Your task to perform on an android device: add a contact in the contacts app Image 0: 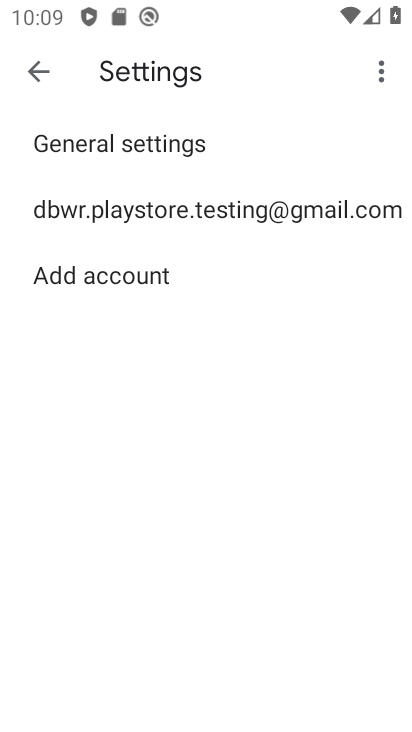
Step 0: press home button
Your task to perform on an android device: add a contact in the contacts app Image 1: 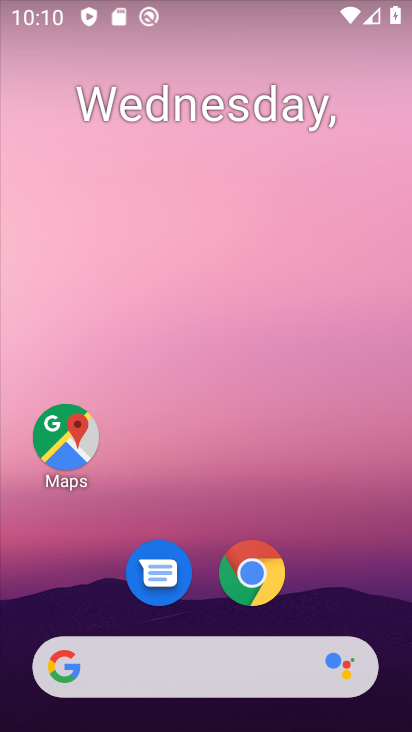
Step 1: drag from (313, 542) to (280, 178)
Your task to perform on an android device: add a contact in the contacts app Image 2: 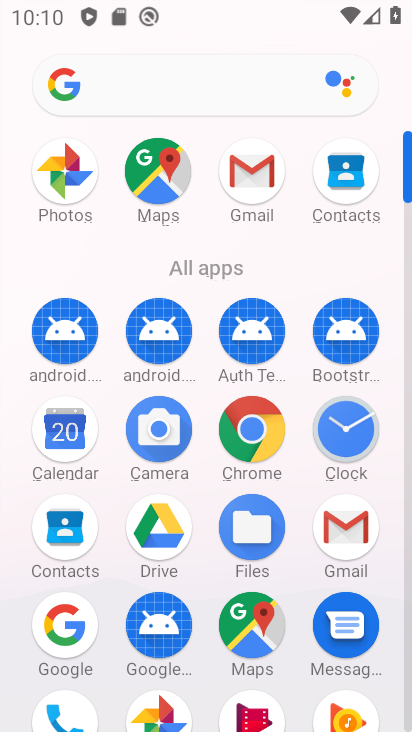
Step 2: click (85, 535)
Your task to perform on an android device: add a contact in the contacts app Image 3: 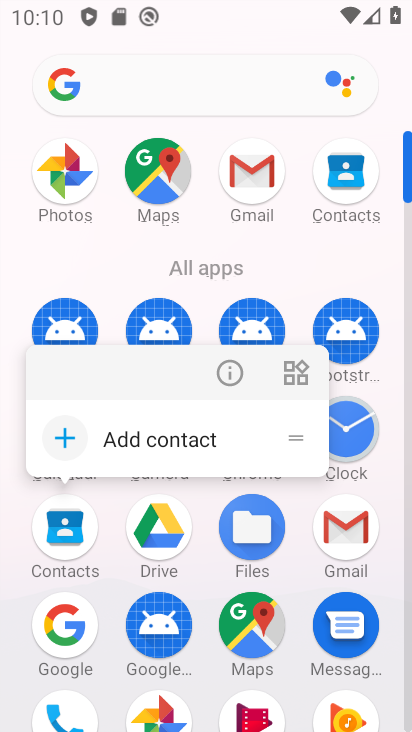
Step 3: click (68, 532)
Your task to perform on an android device: add a contact in the contacts app Image 4: 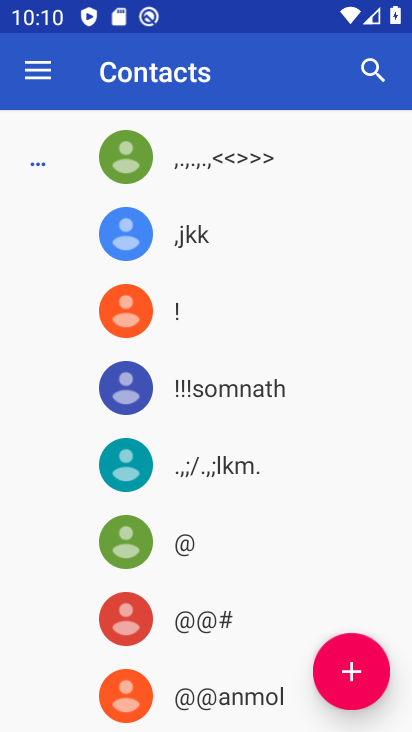
Step 4: click (356, 671)
Your task to perform on an android device: add a contact in the contacts app Image 5: 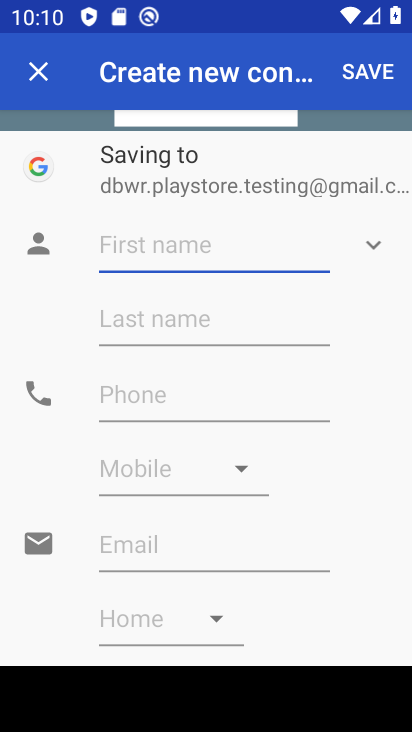
Step 5: click (147, 260)
Your task to perform on an android device: add a contact in the contacts app Image 6: 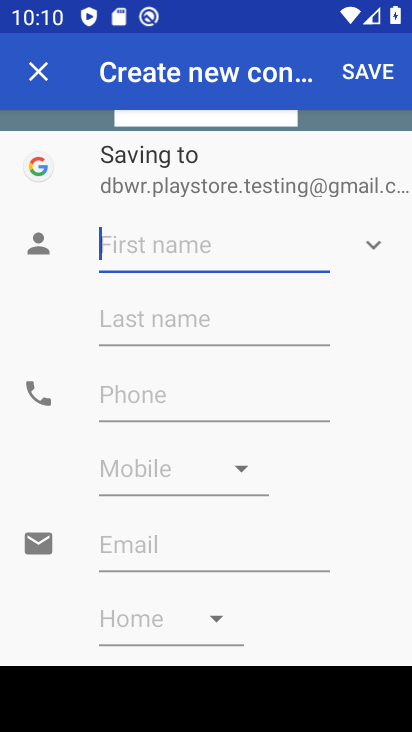
Step 6: type "Pooja"
Your task to perform on an android device: add a contact in the contacts app Image 7: 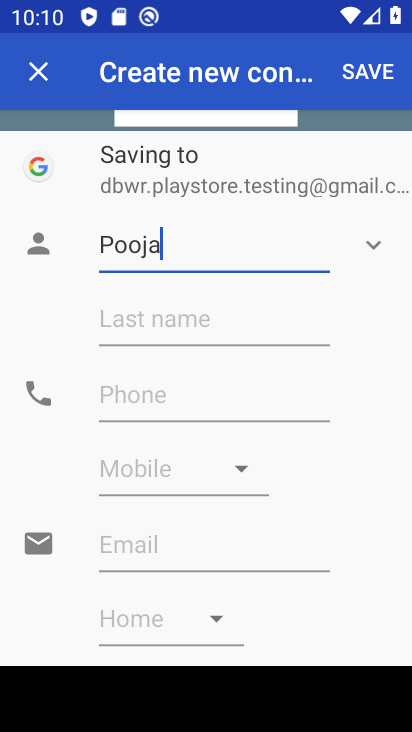
Step 7: click (203, 404)
Your task to perform on an android device: add a contact in the contacts app Image 8: 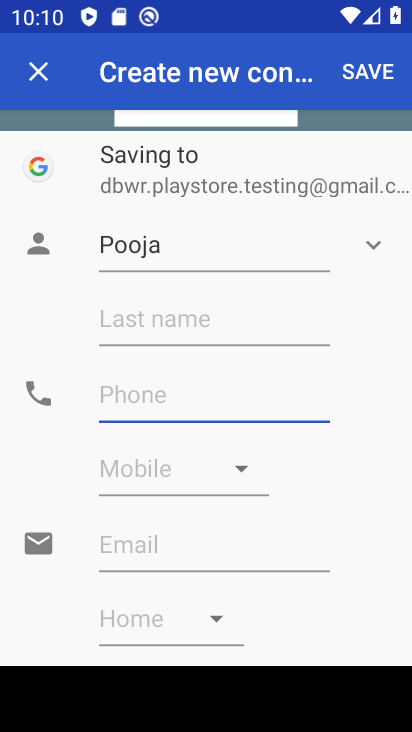
Step 8: type "6578476577"
Your task to perform on an android device: add a contact in the contacts app Image 9: 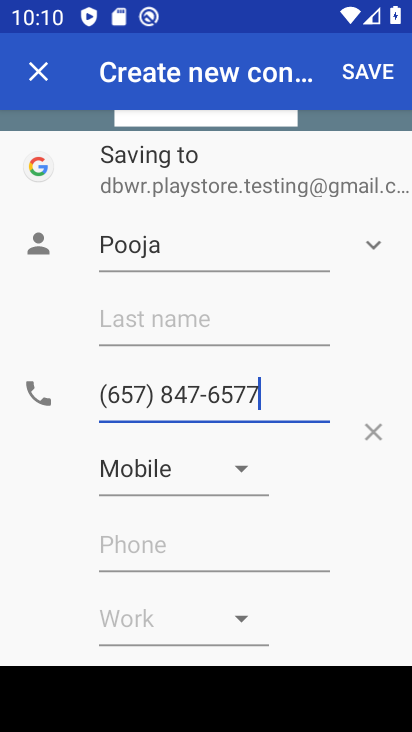
Step 9: click (374, 62)
Your task to perform on an android device: add a contact in the contacts app Image 10: 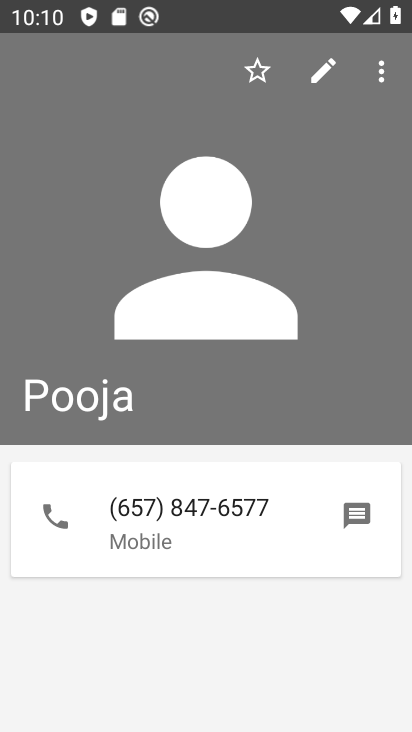
Step 10: task complete